Your task to perform on an android device: turn on priority inbox in the gmail app Image 0: 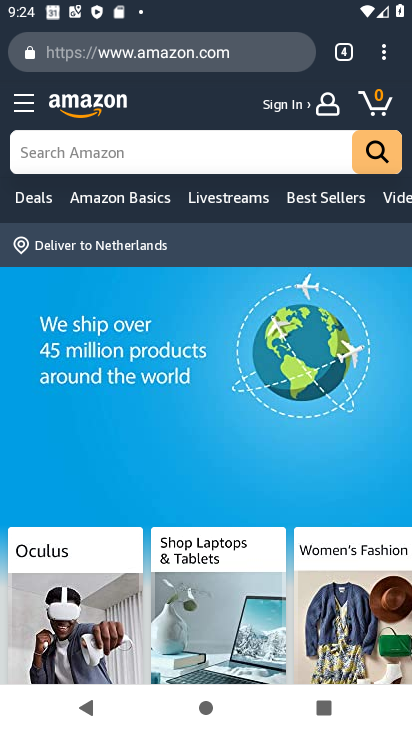
Step 0: press home button
Your task to perform on an android device: turn on priority inbox in the gmail app Image 1: 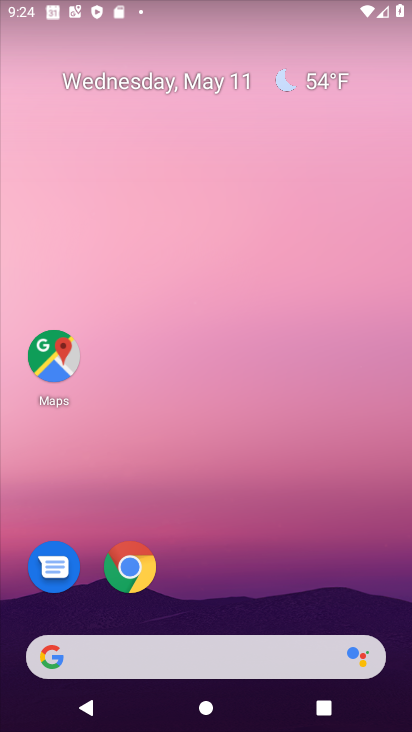
Step 1: drag from (200, 515) to (345, 24)
Your task to perform on an android device: turn on priority inbox in the gmail app Image 2: 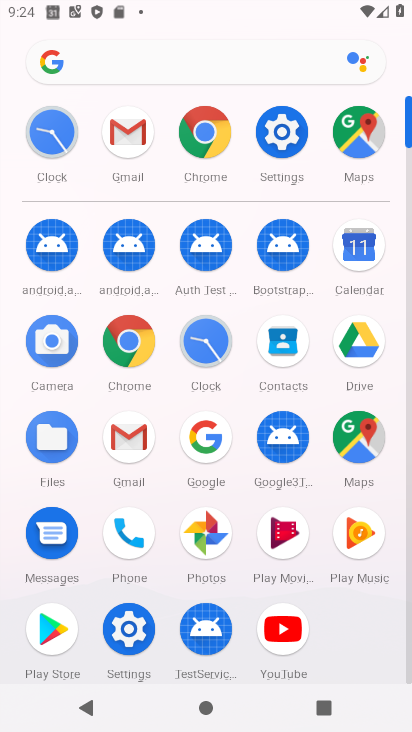
Step 2: click (135, 443)
Your task to perform on an android device: turn on priority inbox in the gmail app Image 3: 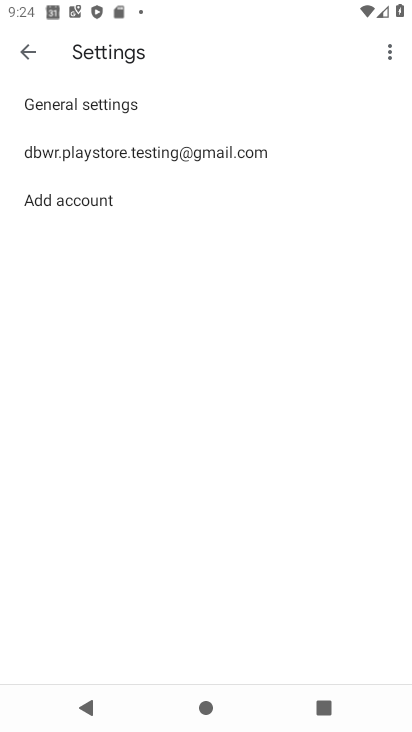
Step 3: click (130, 163)
Your task to perform on an android device: turn on priority inbox in the gmail app Image 4: 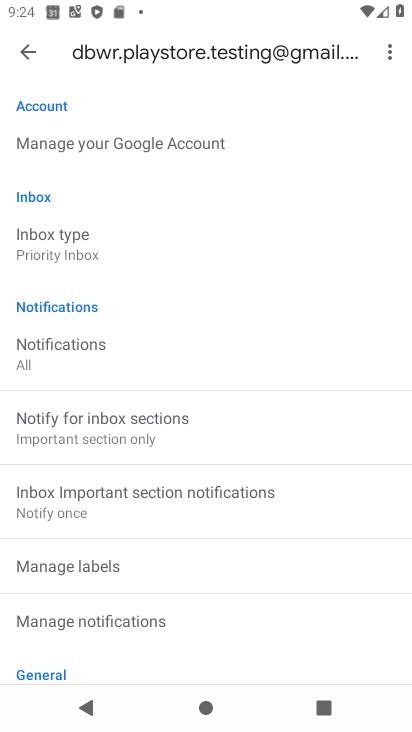
Step 4: click (66, 237)
Your task to perform on an android device: turn on priority inbox in the gmail app Image 5: 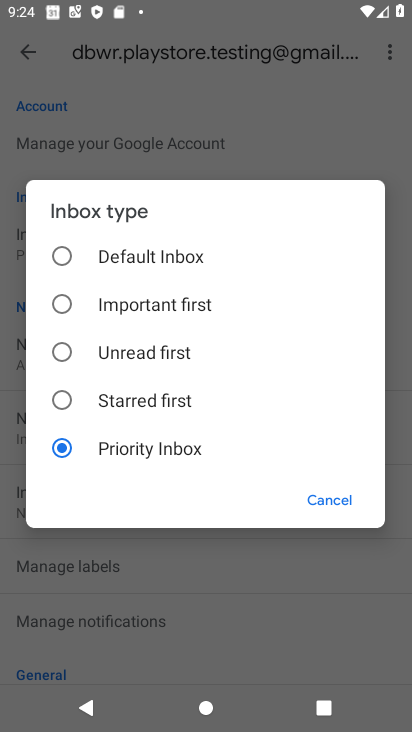
Step 5: task complete